Your task to perform on an android device: Open display settings Image 0: 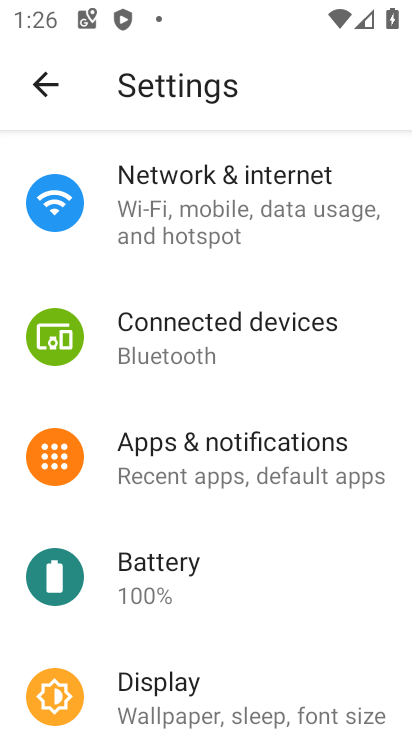
Step 0: click (162, 692)
Your task to perform on an android device: Open display settings Image 1: 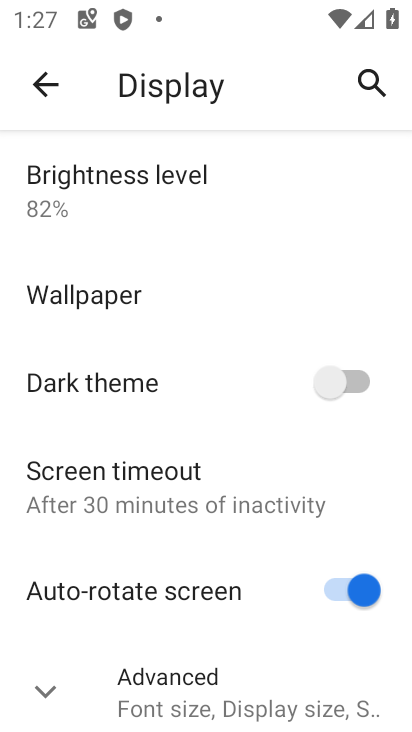
Step 1: task complete